Your task to perform on an android device: Is it going to rain today? Image 0: 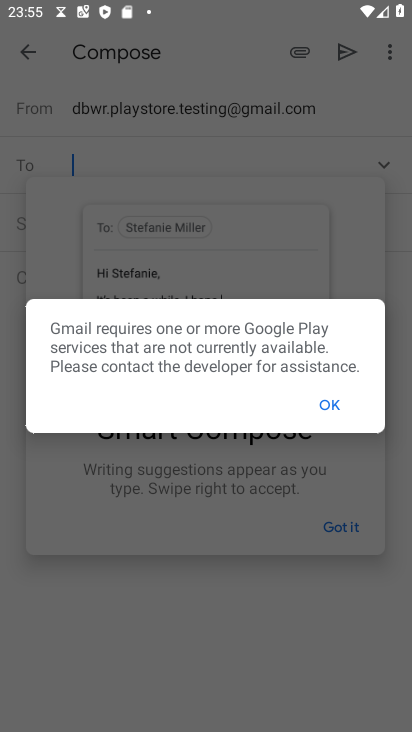
Step 0: press home button
Your task to perform on an android device: Is it going to rain today? Image 1: 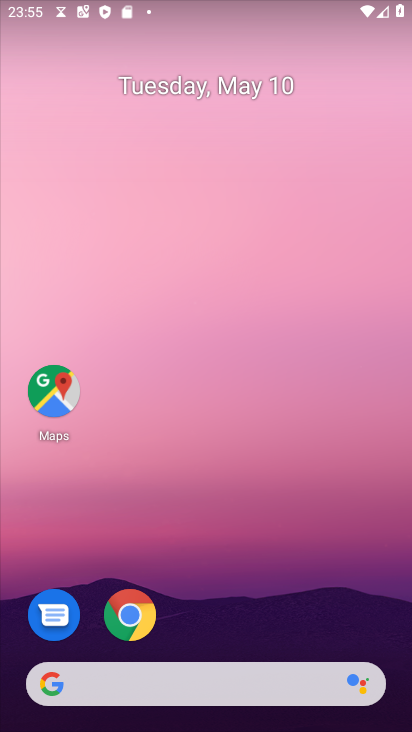
Step 1: drag from (253, 546) to (298, 69)
Your task to perform on an android device: Is it going to rain today? Image 2: 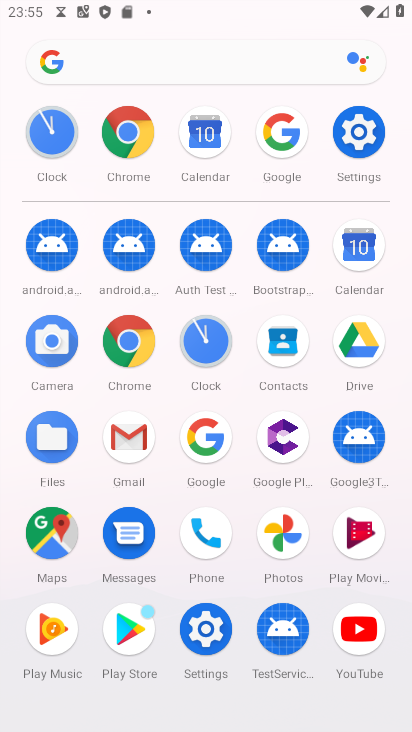
Step 2: click (202, 441)
Your task to perform on an android device: Is it going to rain today? Image 3: 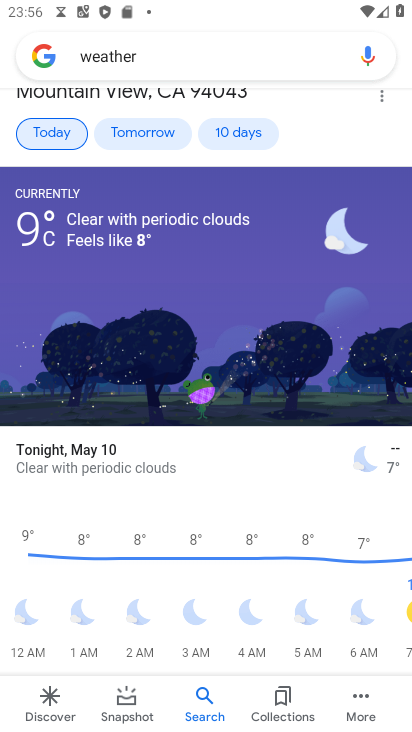
Step 3: task complete